Your task to perform on an android device: turn on sleep mode Image 0: 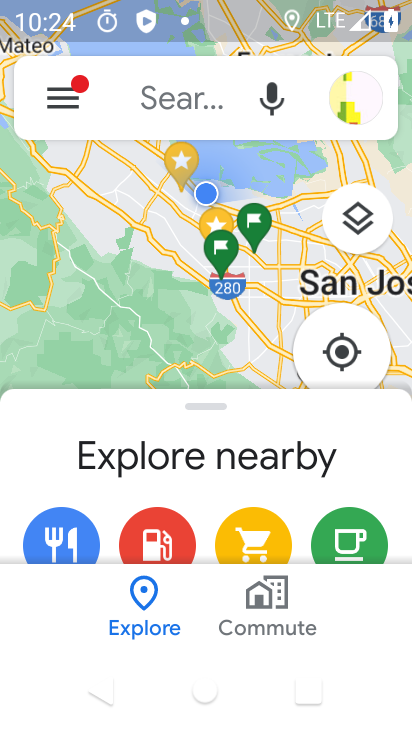
Step 0: press home button
Your task to perform on an android device: turn on sleep mode Image 1: 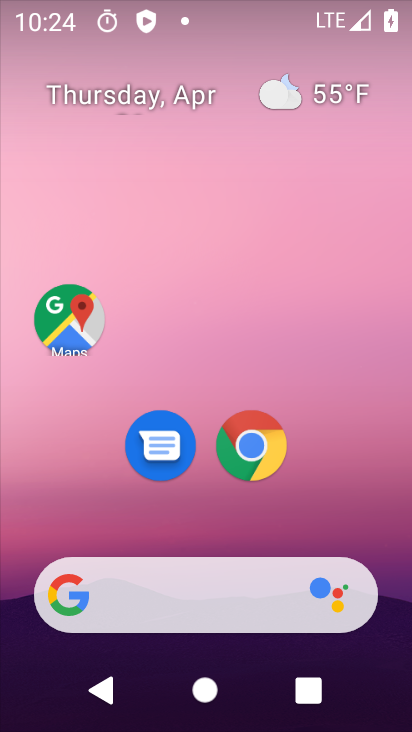
Step 1: drag from (347, 535) to (336, 9)
Your task to perform on an android device: turn on sleep mode Image 2: 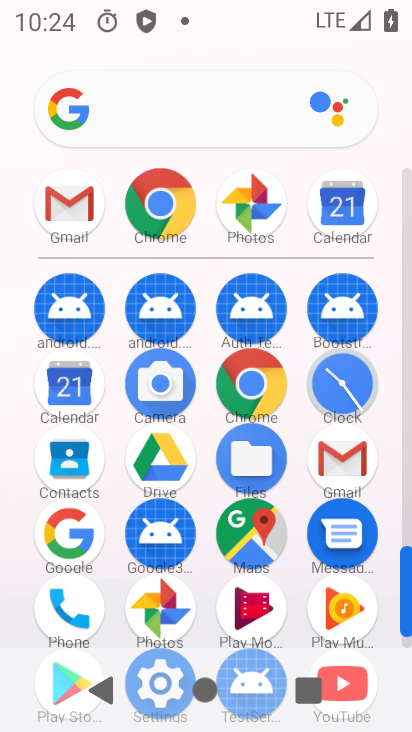
Step 2: drag from (409, 521) to (410, 415)
Your task to perform on an android device: turn on sleep mode Image 3: 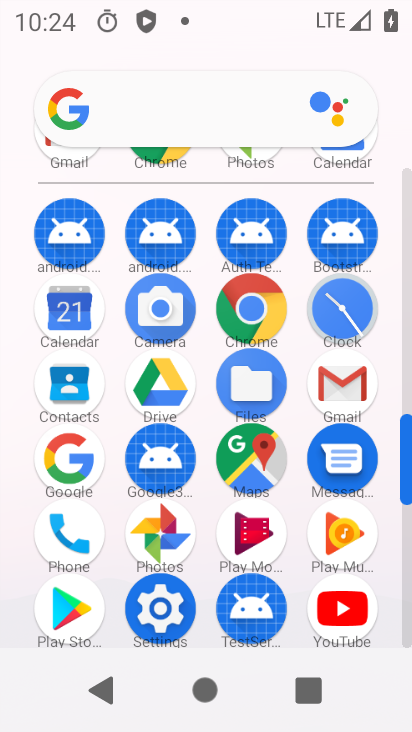
Step 3: click (158, 609)
Your task to perform on an android device: turn on sleep mode Image 4: 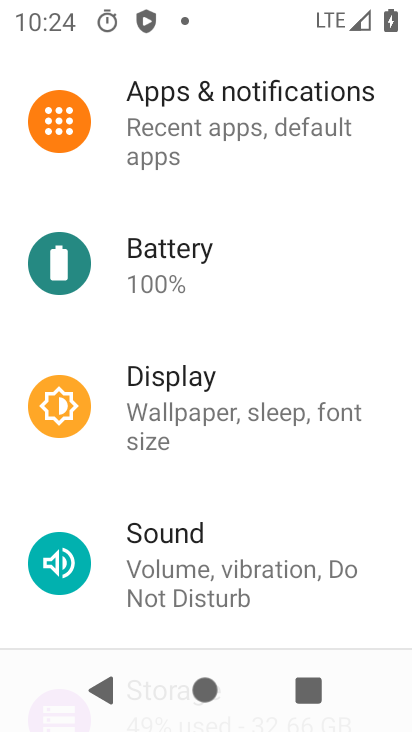
Step 4: click (166, 403)
Your task to perform on an android device: turn on sleep mode Image 5: 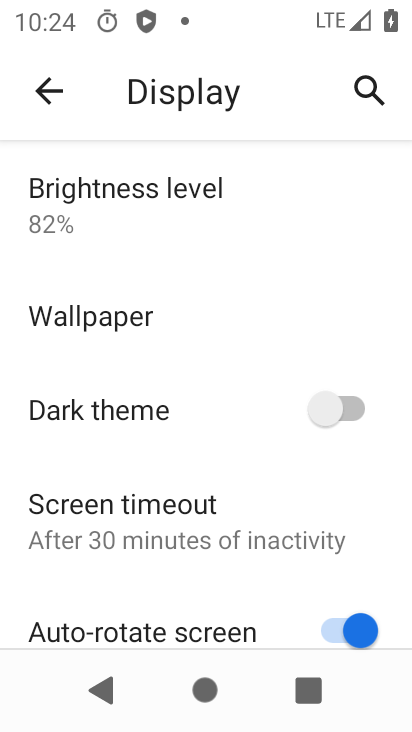
Step 5: drag from (159, 486) to (178, 106)
Your task to perform on an android device: turn on sleep mode Image 6: 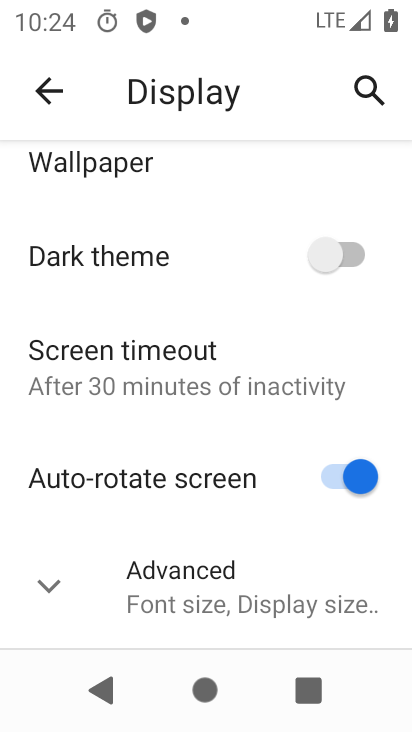
Step 6: click (43, 584)
Your task to perform on an android device: turn on sleep mode Image 7: 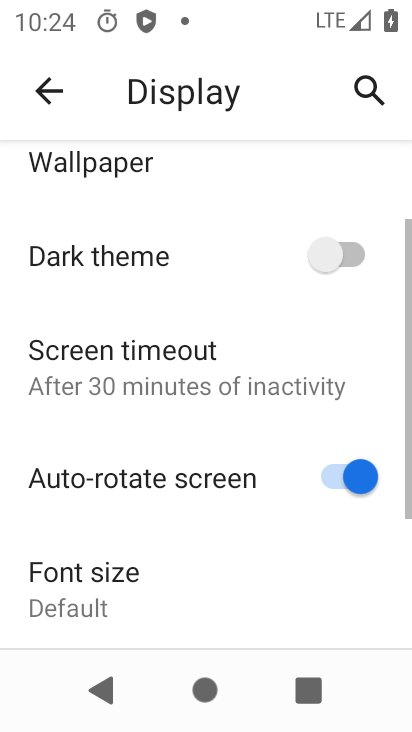
Step 7: task complete